Your task to perform on an android device: Go to privacy settings Image 0: 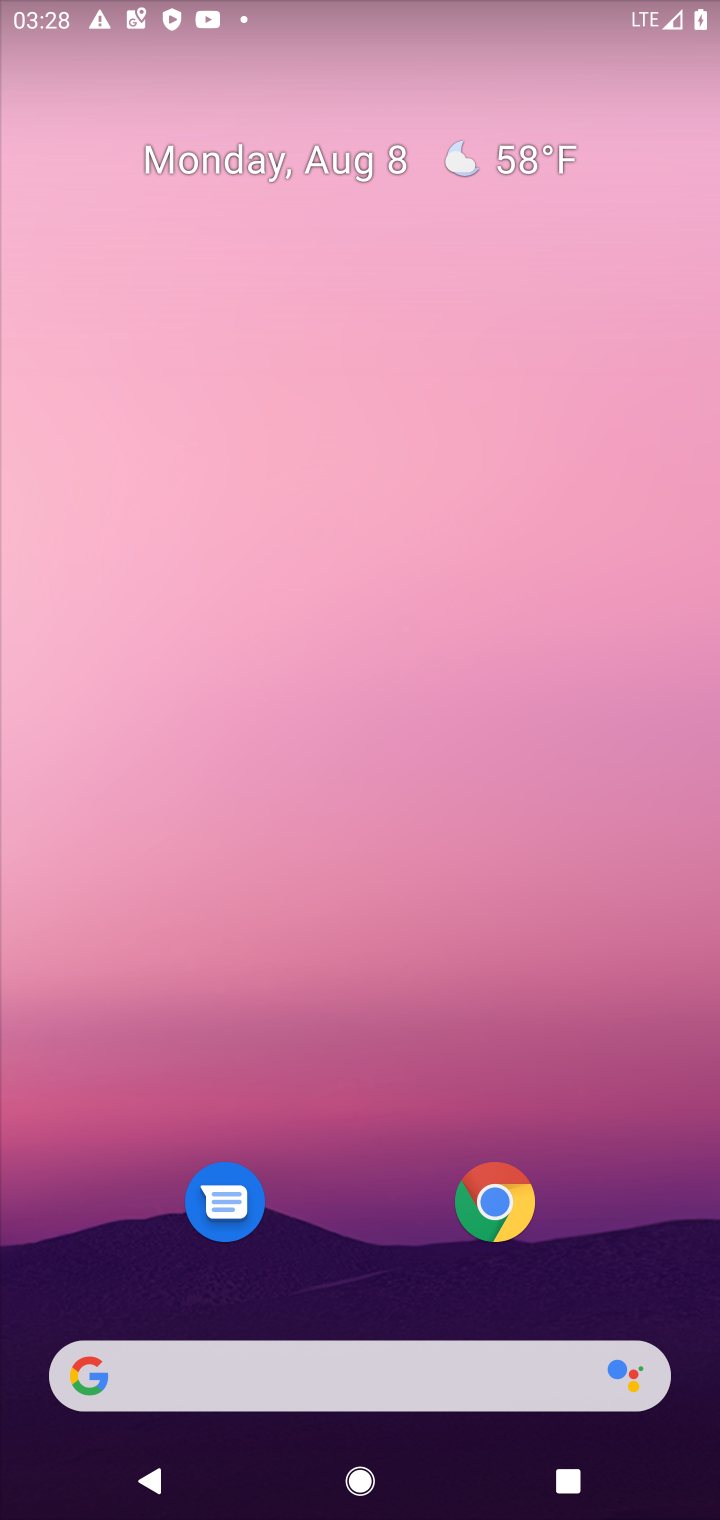
Step 0: press back button
Your task to perform on an android device: Go to privacy settings Image 1: 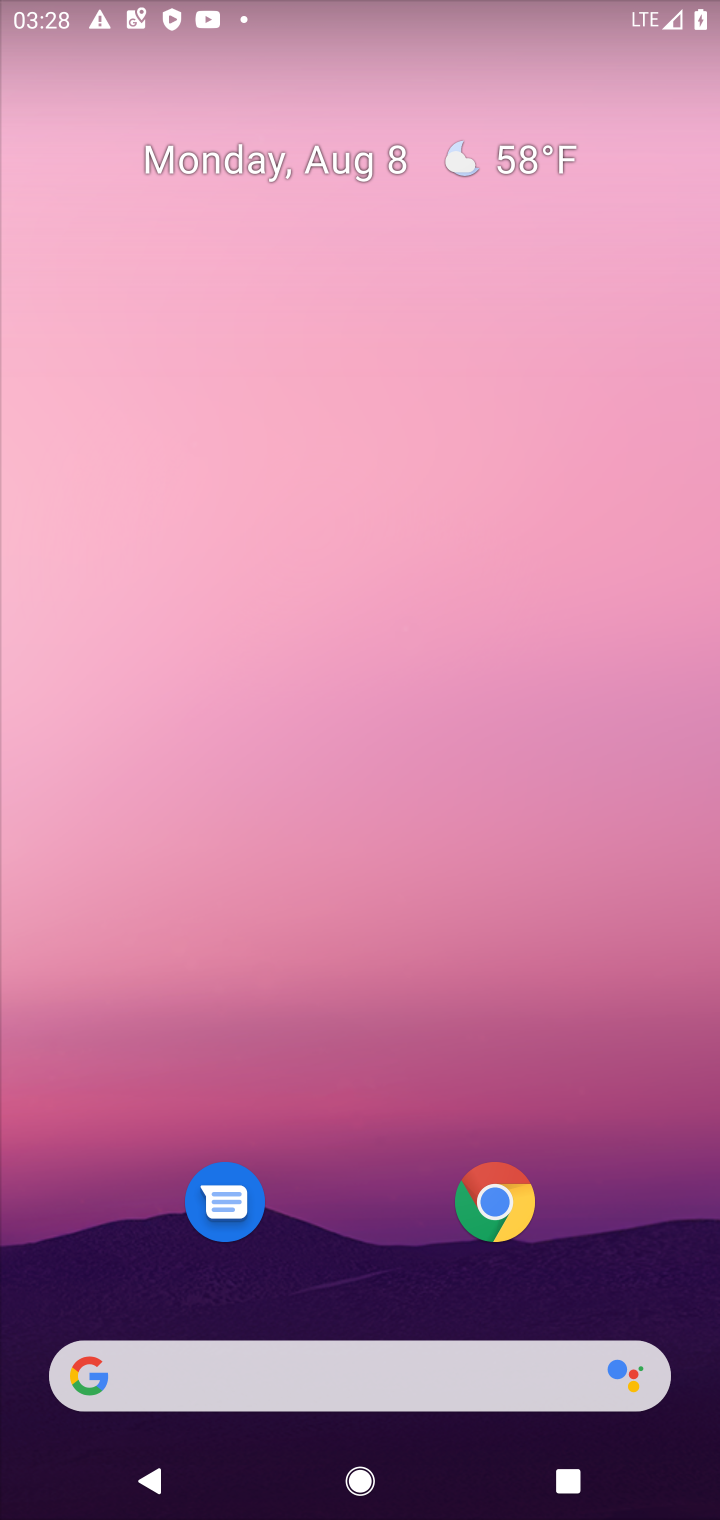
Step 1: press home button
Your task to perform on an android device: Go to privacy settings Image 2: 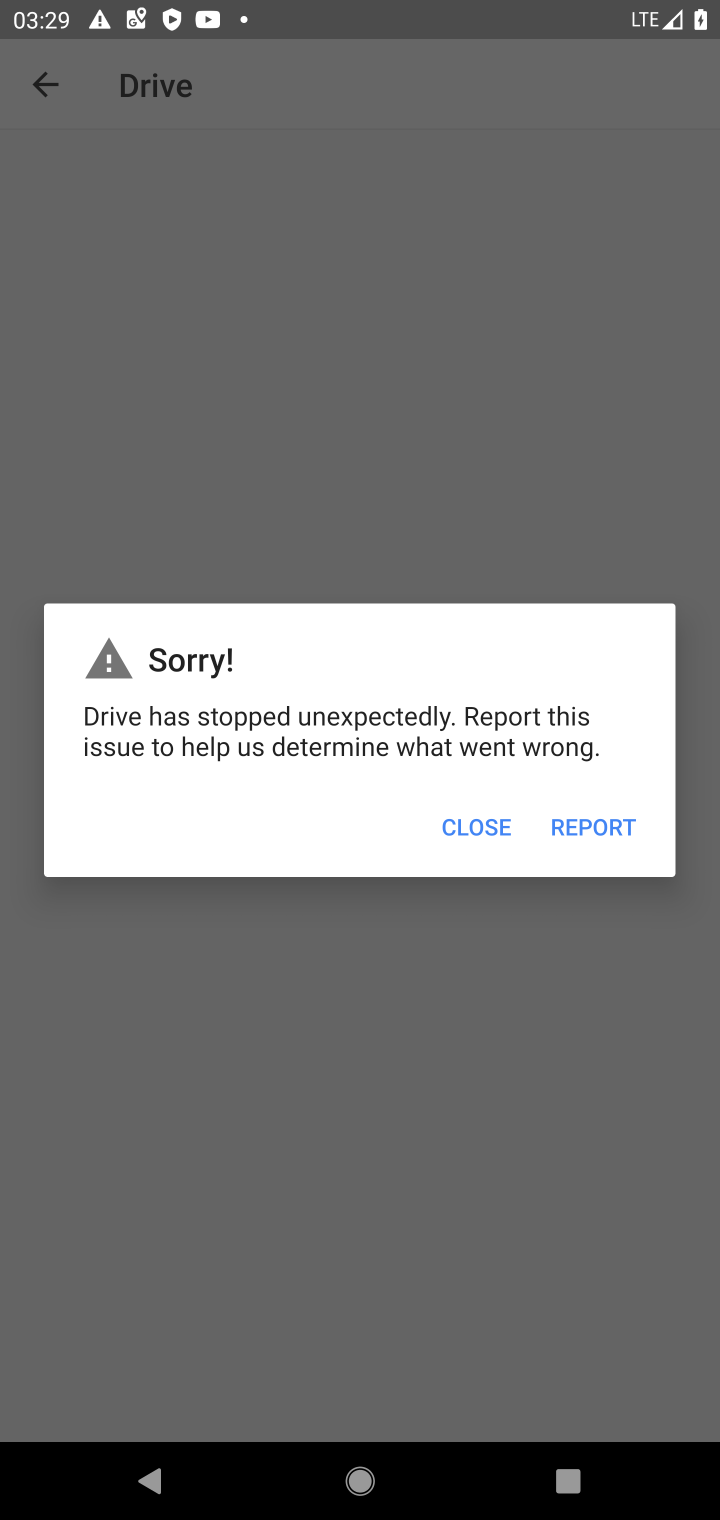
Step 2: drag from (334, 452) to (359, 193)
Your task to perform on an android device: Go to privacy settings Image 3: 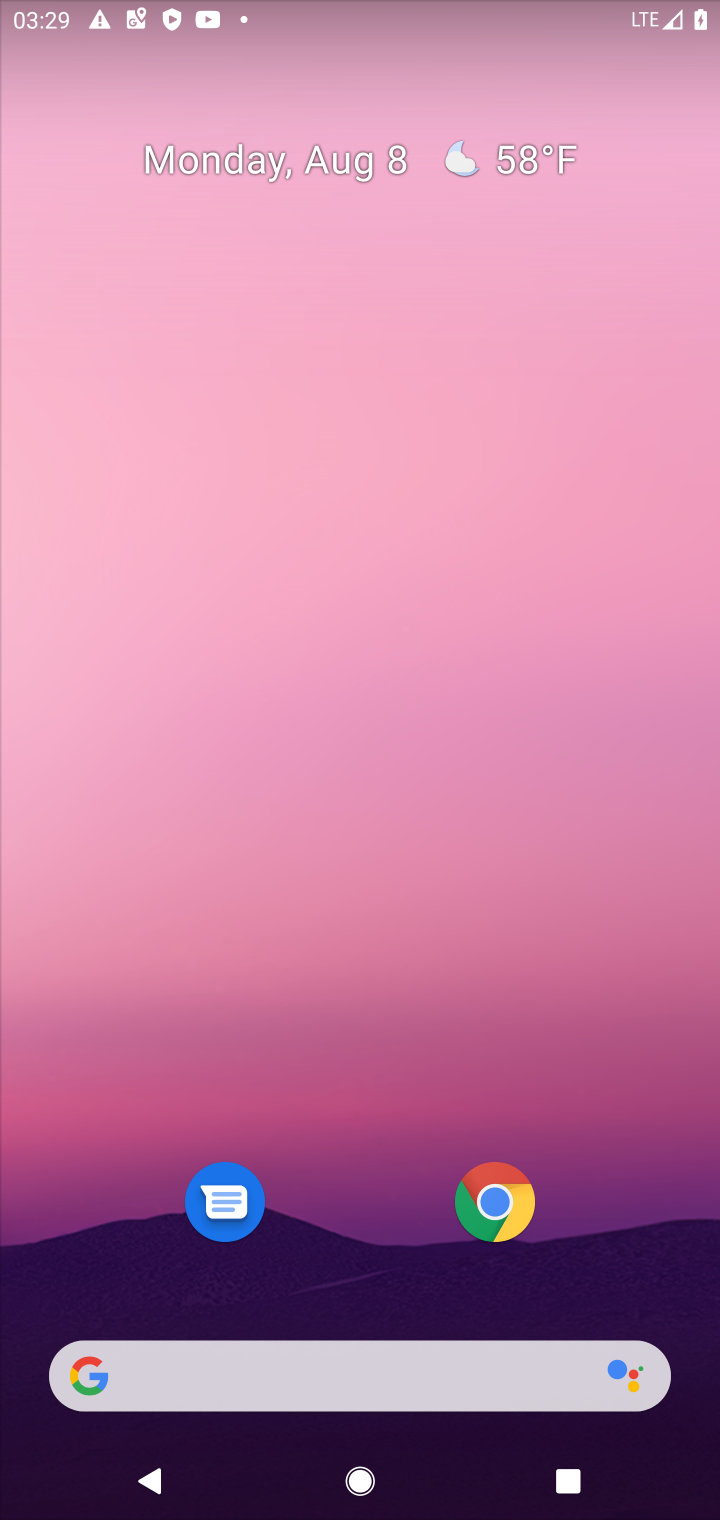
Step 3: press home button
Your task to perform on an android device: Go to privacy settings Image 4: 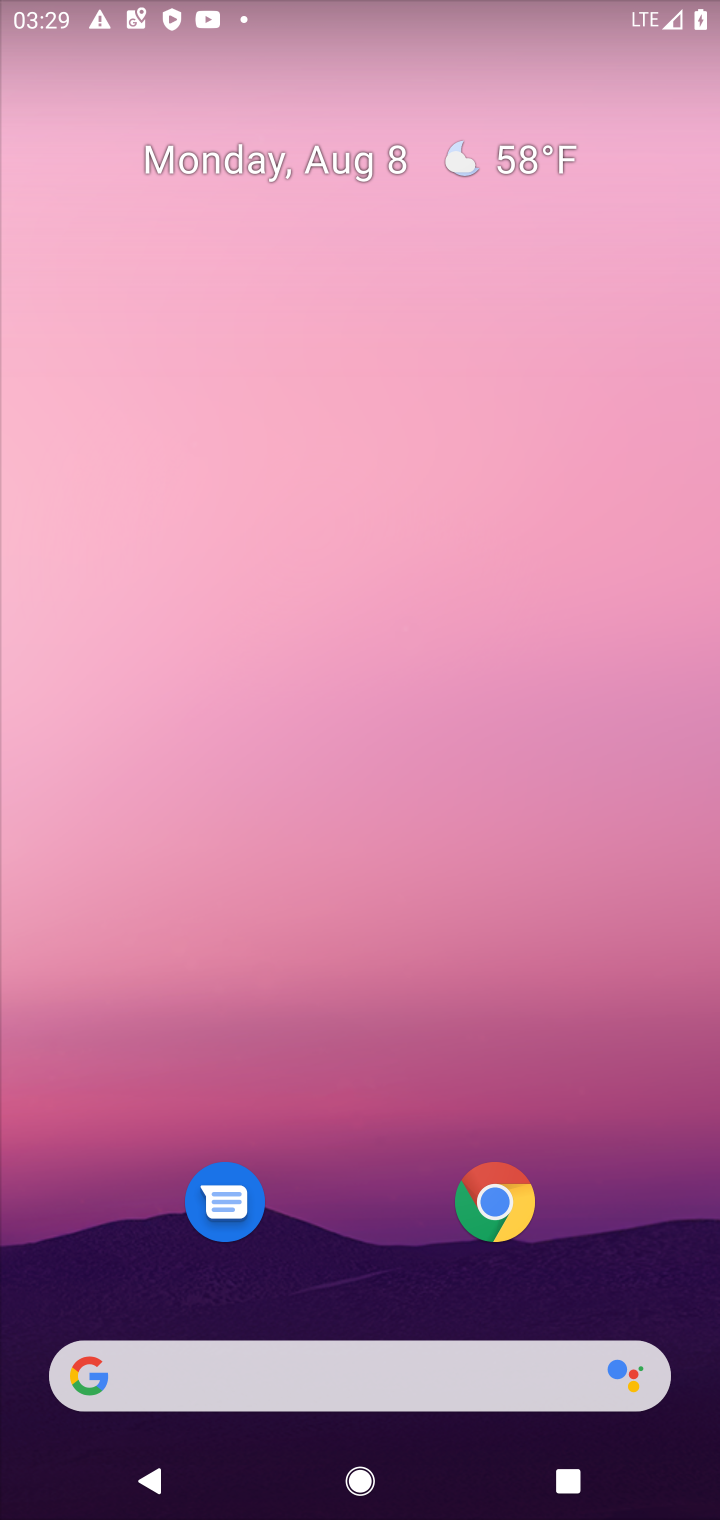
Step 4: drag from (399, 20) to (432, 164)
Your task to perform on an android device: Go to privacy settings Image 5: 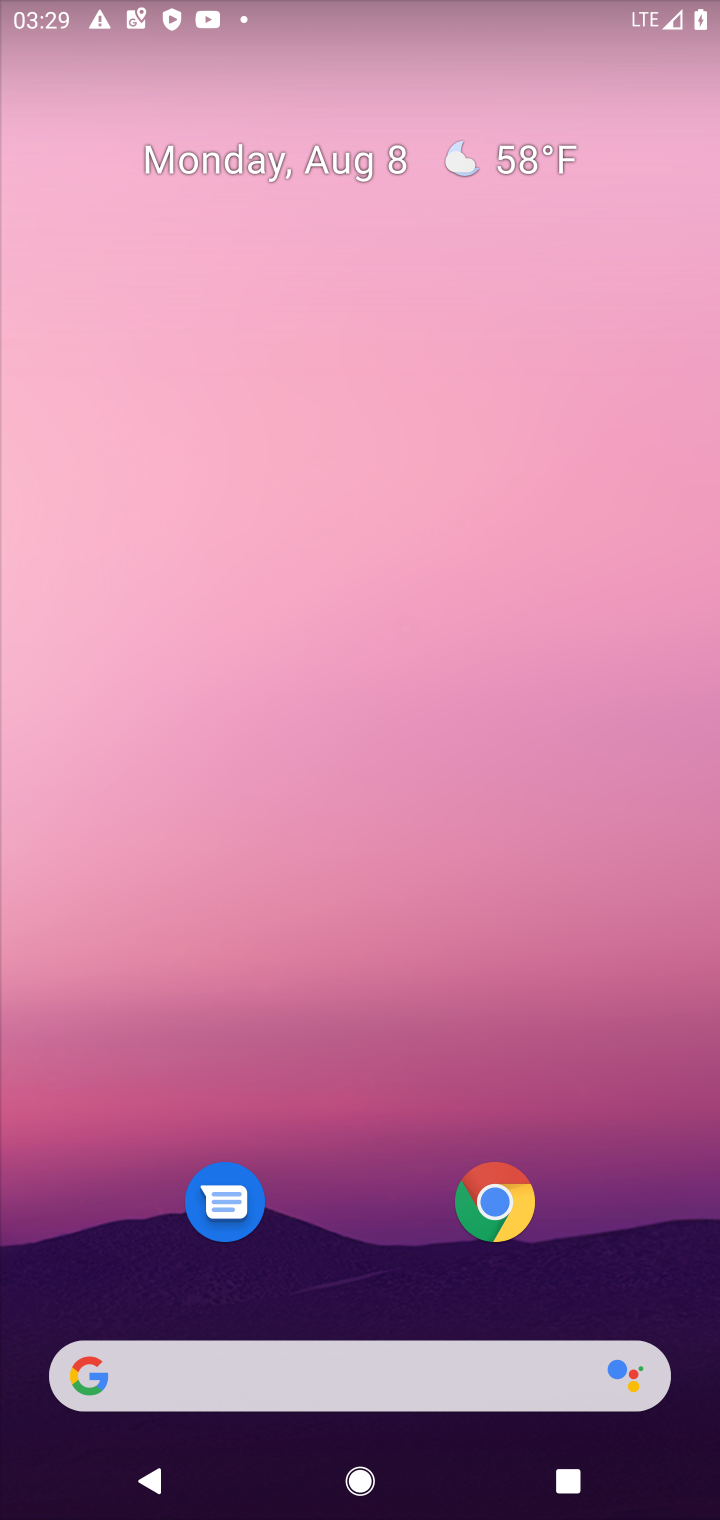
Step 5: drag from (344, 1296) to (354, 282)
Your task to perform on an android device: Go to privacy settings Image 6: 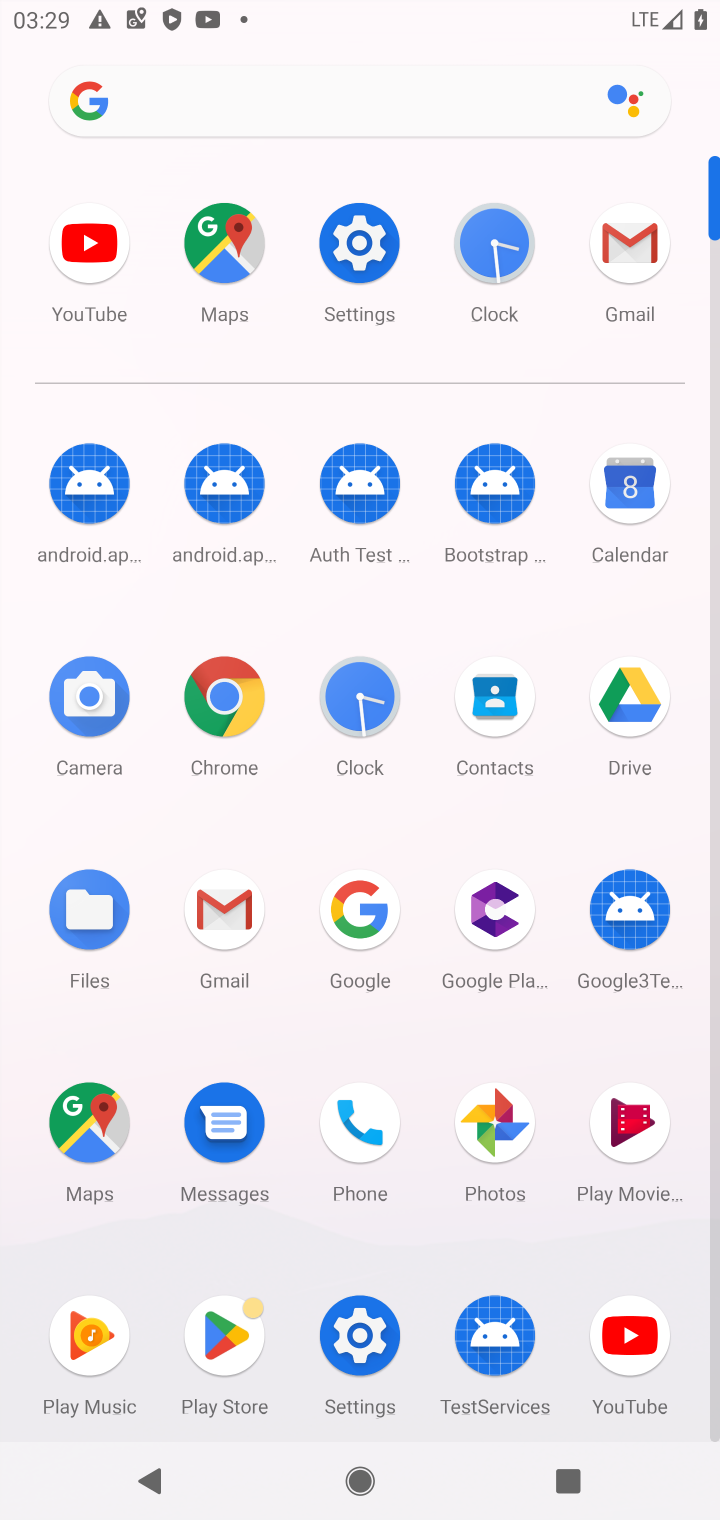
Step 6: click (359, 253)
Your task to perform on an android device: Go to privacy settings Image 7: 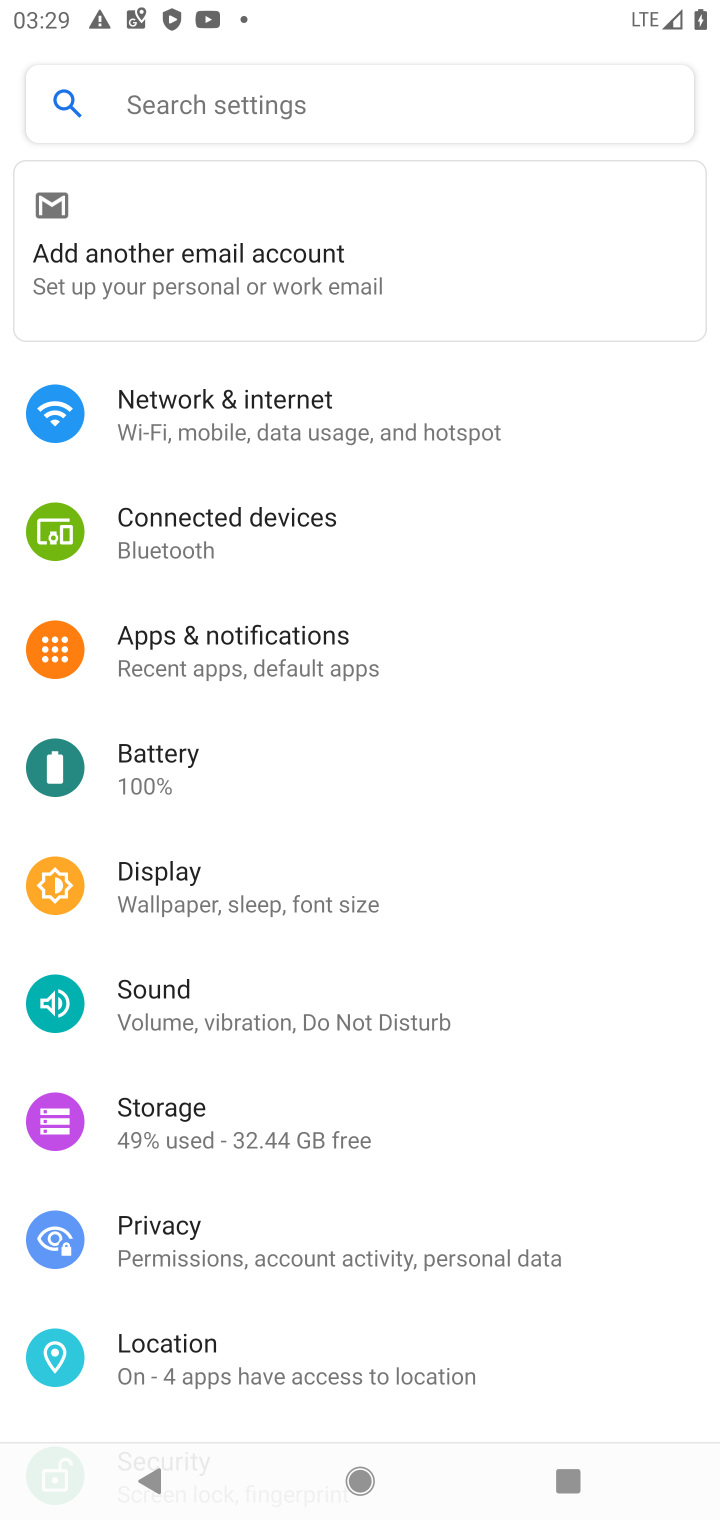
Step 7: click (159, 1249)
Your task to perform on an android device: Go to privacy settings Image 8: 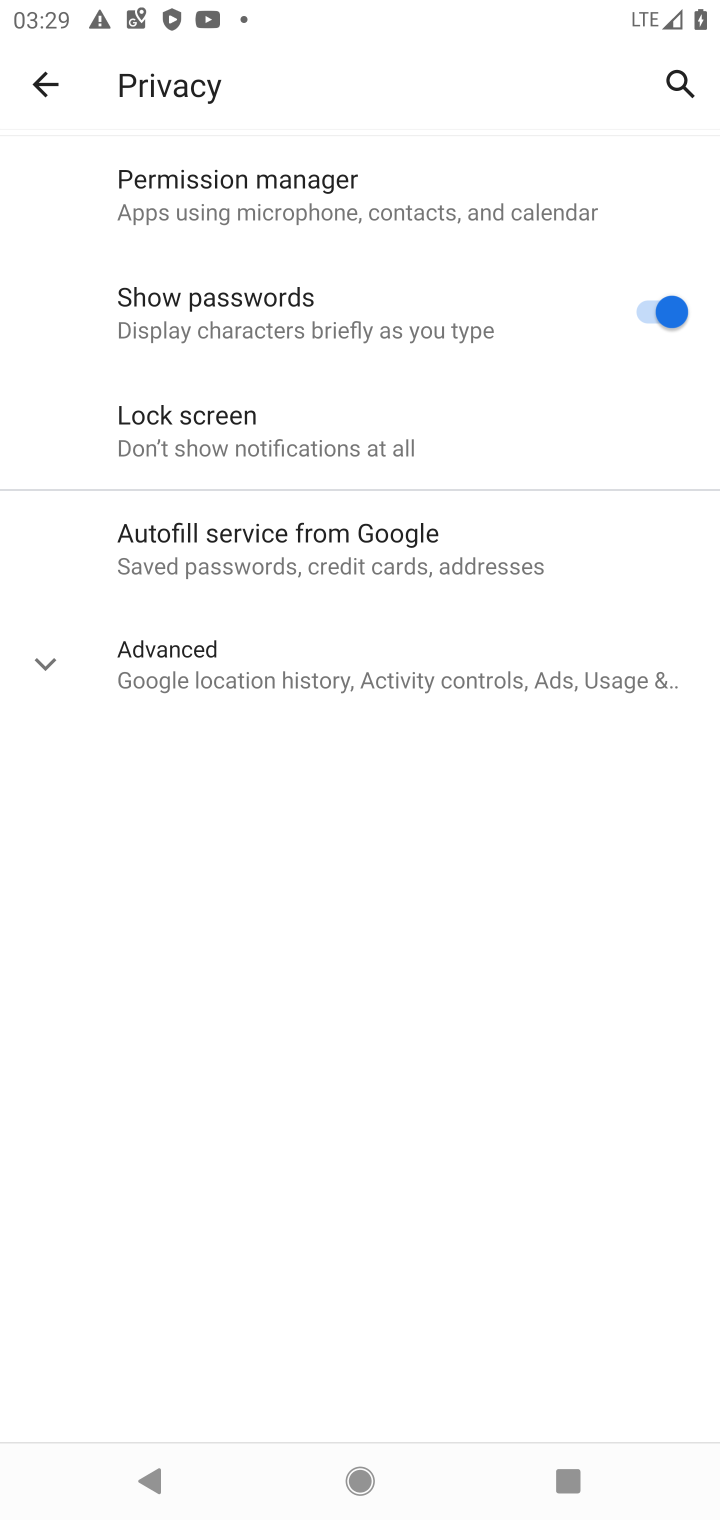
Step 8: task complete